Your task to perform on an android device: Search for seafood restaurants on Google Maps Image 0: 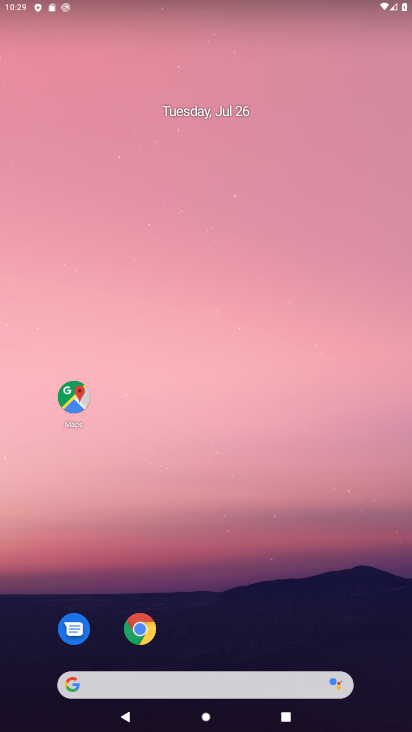
Step 0: drag from (295, 649) to (189, 126)
Your task to perform on an android device: Search for seafood restaurants on Google Maps Image 1: 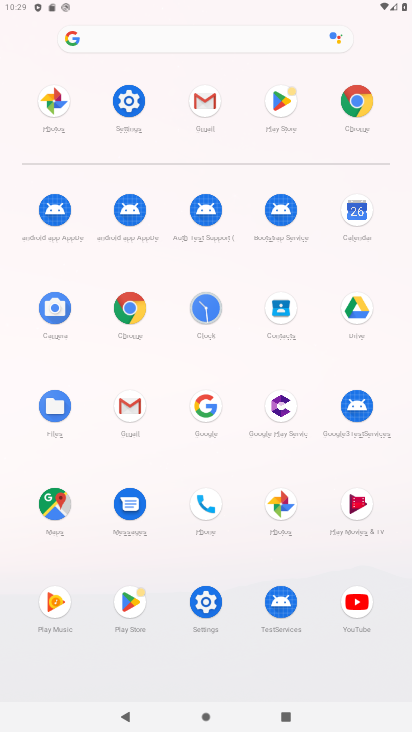
Step 1: click (45, 511)
Your task to perform on an android device: Search for seafood restaurants on Google Maps Image 2: 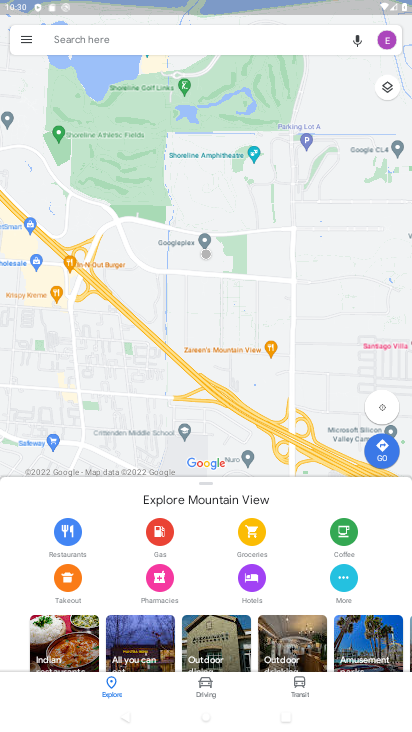
Step 2: click (114, 31)
Your task to perform on an android device: Search for seafood restaurants on Google Maps Image 3: 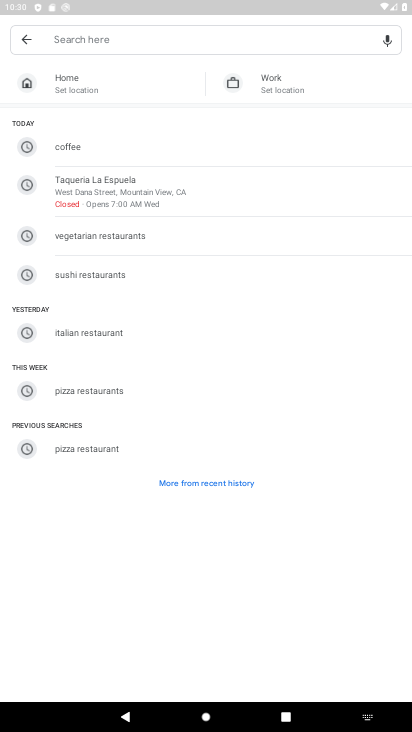
Step 3: type "seafood"
Your task to perform on an android device: Search for seafood restaurants on Google Maps Image 4: 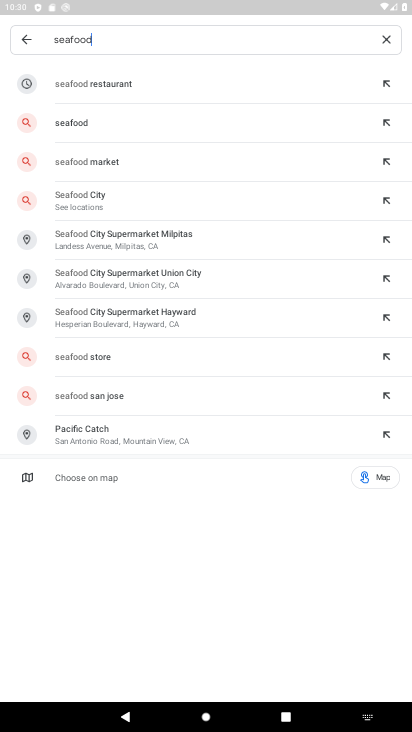
Step 4: click (143, 88)
Your task to perform on an android device: Search for seafood restaurants on Google Maps Image 5: 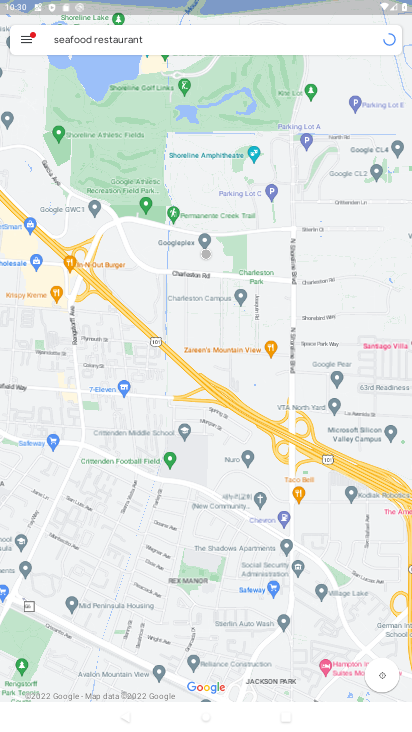
Step 5: task complete